Your task to perform on an android device: refresh tabs in the chrome app Image 0: 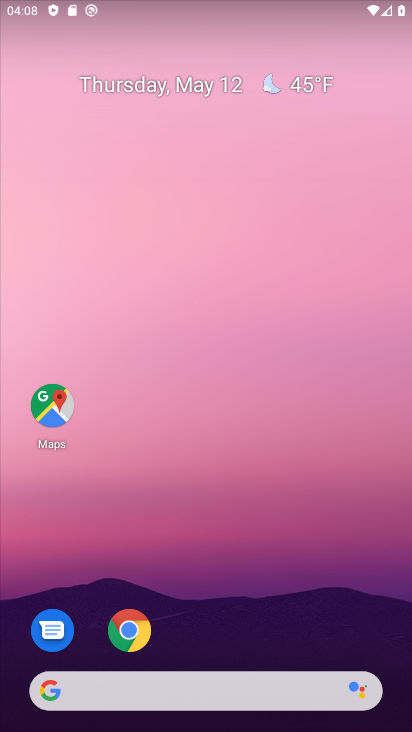
Step 0: click (385, 425)
Your task to perform on an android device: refresh tabs in the chrome app Image 1: 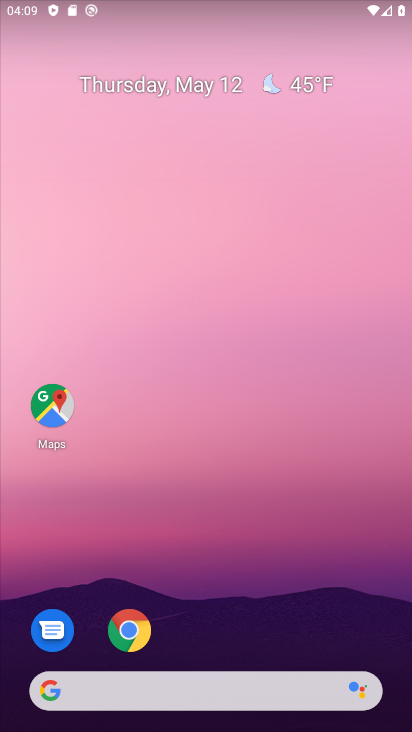
Step 1: drag from (197, 600) to (234, 7)
Your task to perform on an android device: refresh tabs in the chrome app Image 2: 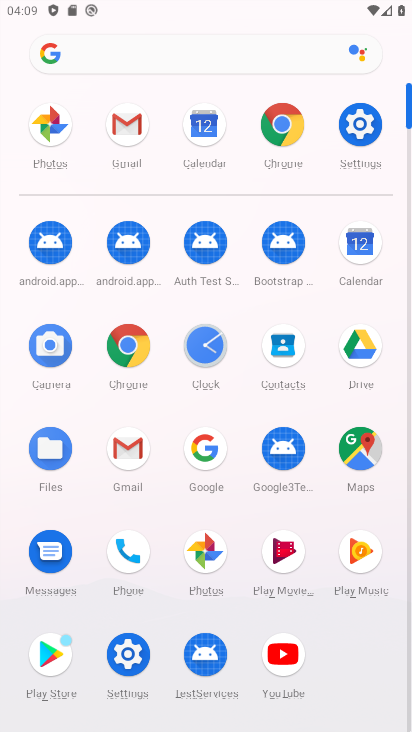
Step 2: click (138, 365)
Your task to perform on an android device: refresh tabs in the chrome app Image 3: 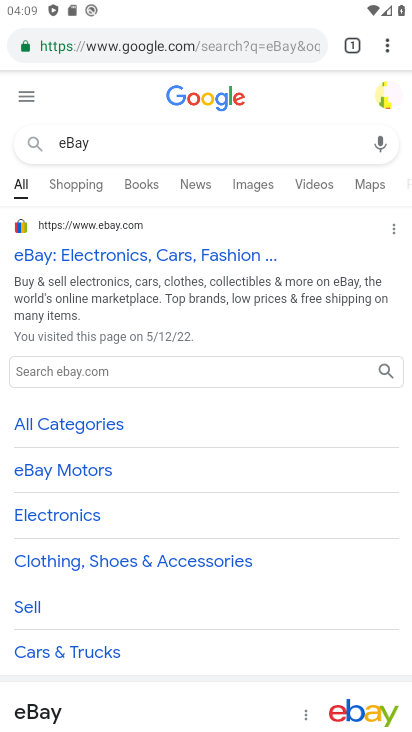
Step 3: click (386, 49)
Your task to perform on an android device: refresh tabs in the chrome app Image 4: 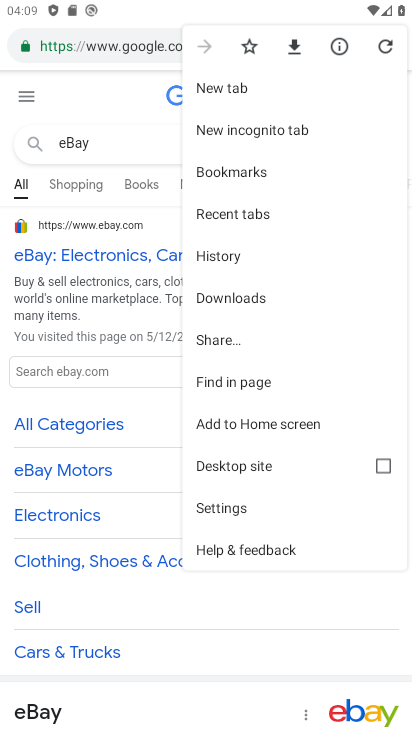
Step 4: click (388, 41)
Your task to perform on an android device: refresh tabs in the chrome app Image 5: 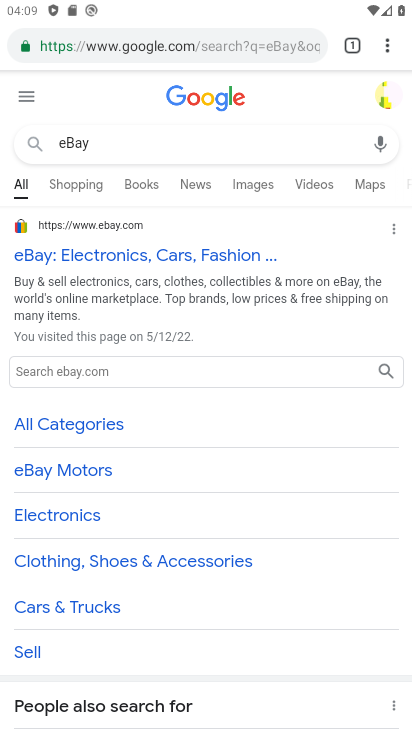
Step 5: task complete